Your task to perform on an android device: Go to CNN.com Image 0: 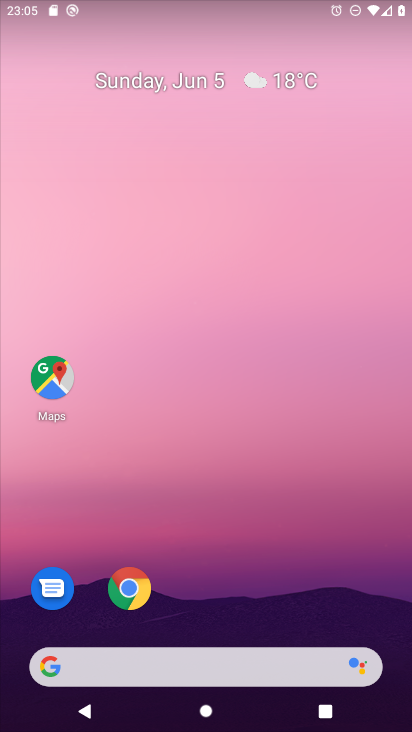
Step 0: drag from (362, 613) to (357, 180)
Your task to perform on an android device: Go to CNN.com Image 1: 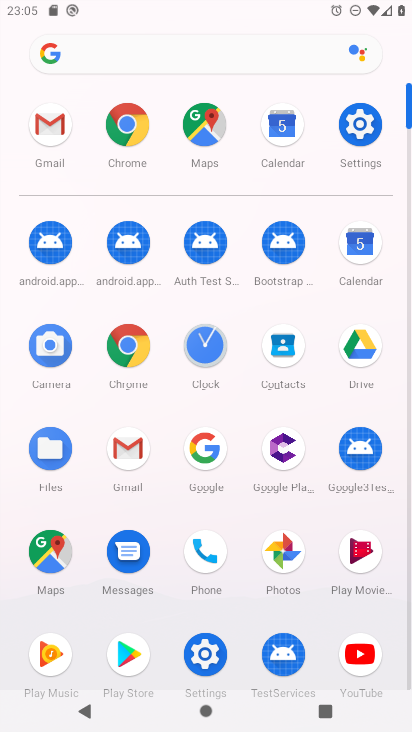
Step 1: click (129, 349)
Your task to perform on an android device: Go to CNN.com Image 2: 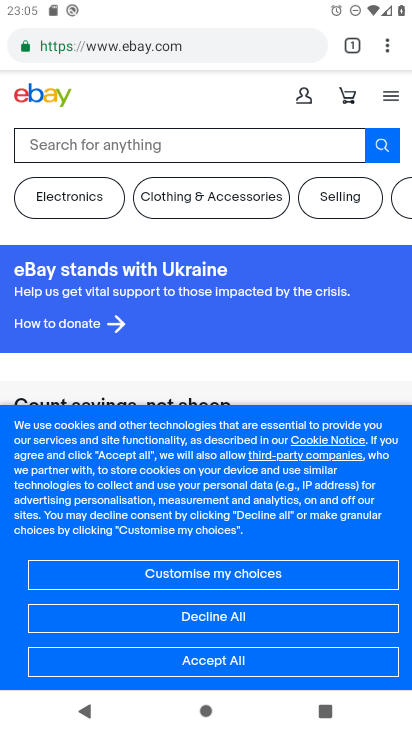
Step 2: click (180, 50)
Your task to perform on an android device: Go to CNN.com Image 3: 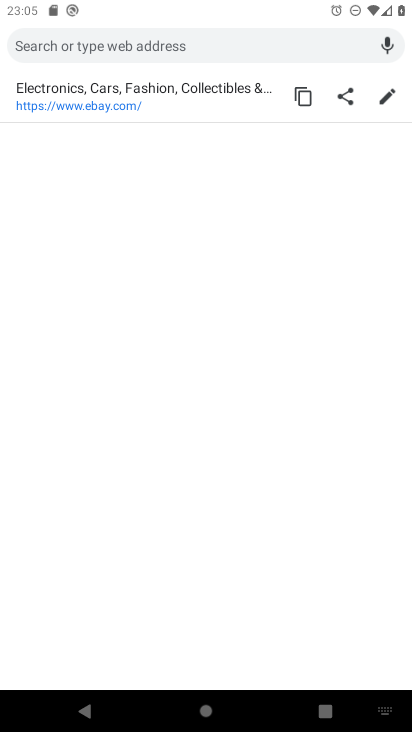
Step 3: type "cnn.com"
Your task to perform on an android device: Go to CNN.com Image 4: 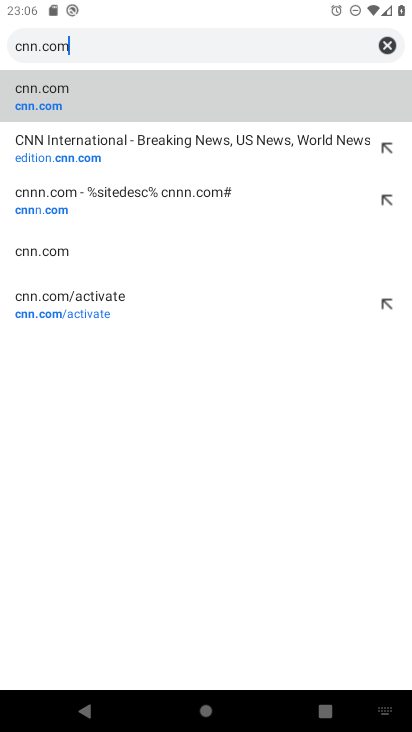
Step 4: click (79, 105)
Your task to perform on an android device: Go to CNN.com Image 5: 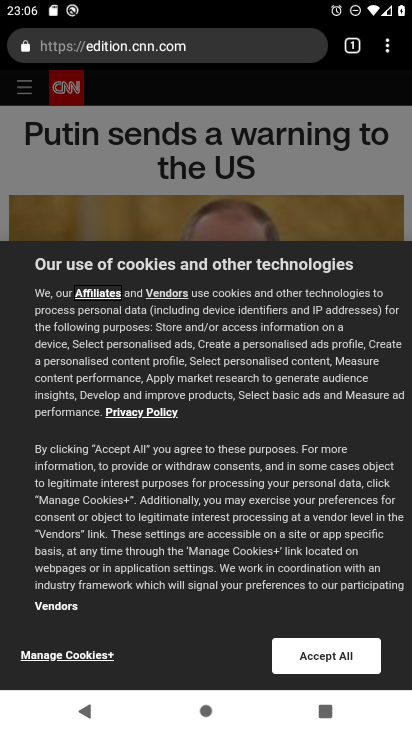
Step 5: task complete